Your task to perform on an android device: change the upload size in google photos Image 0: 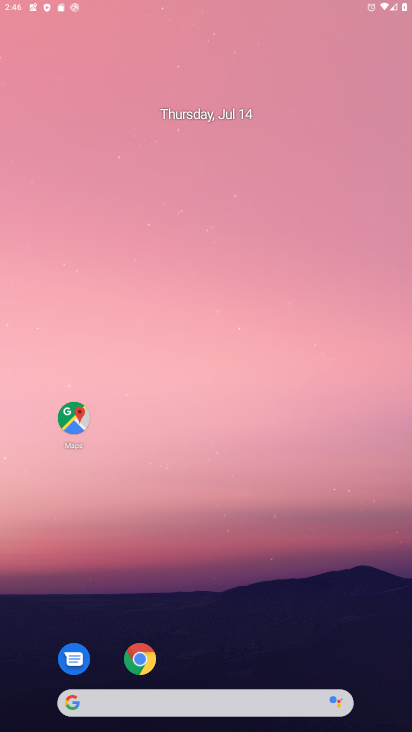
Step 0: click (266, 25)
Your task to perform on an android device: change the upload size in google photos Image 1: 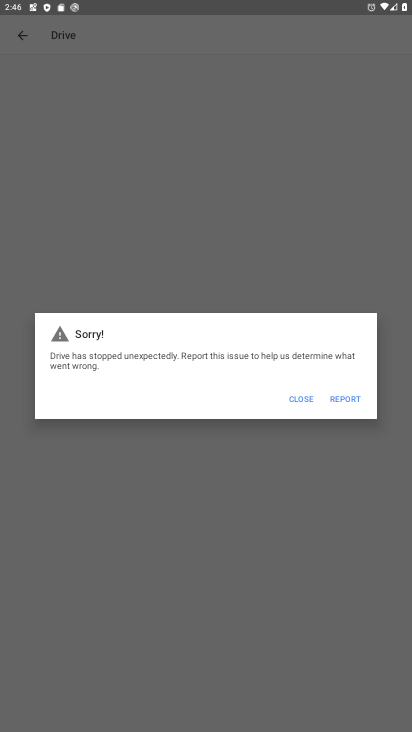
Step 1: press home button
Your task to perform on an android device: change the upload size in google photos Image 2: 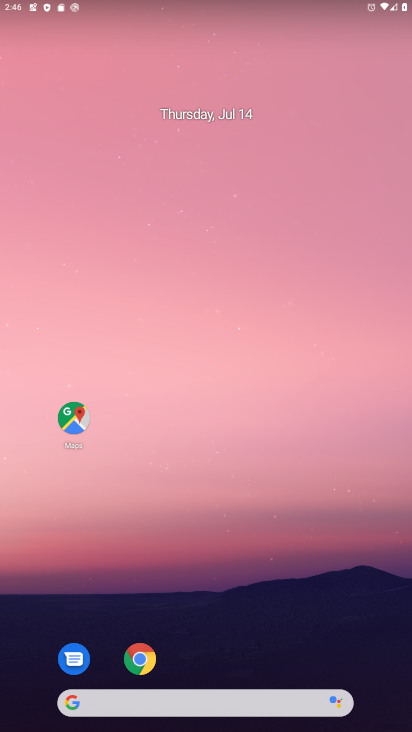
Step 2: drag from (293, 652) to (291, 229)
Your task to perform on an android device: change the upload size in google photos Image 3: 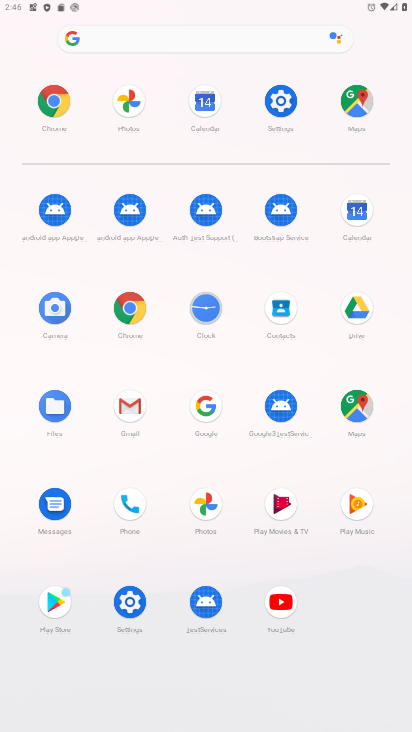
Step 3: click (212, 508)
Your task to perform on an android device: change the upload size in google photos Image 4: 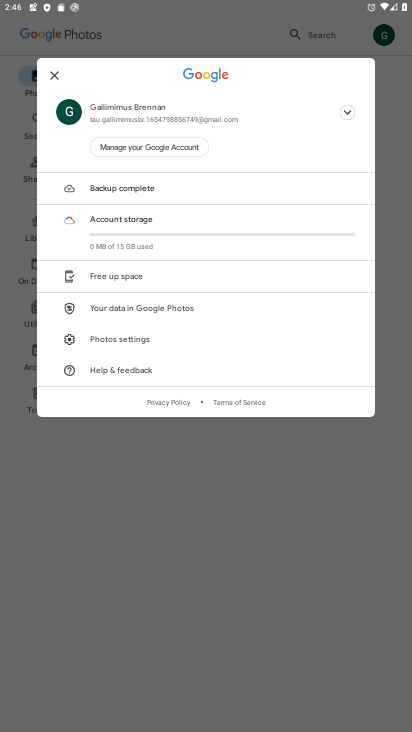
Step 4: click (121, 344)
Your task to perform on an android device: change the upload size in google photos Image 5: 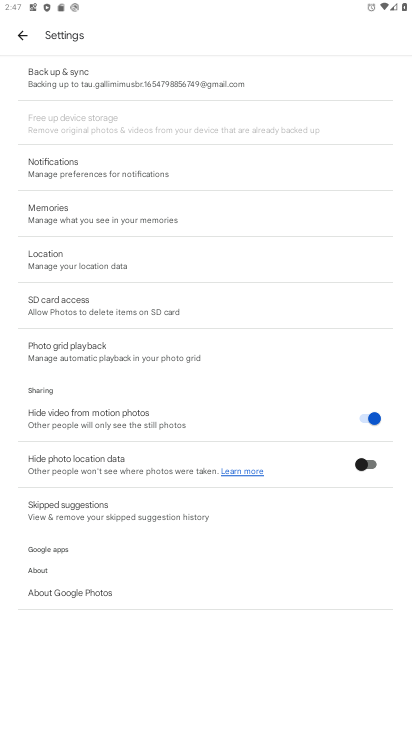
Step 5: click (102, 81)
Your task to perform on an android device: change the upload size in google photos Image 6: 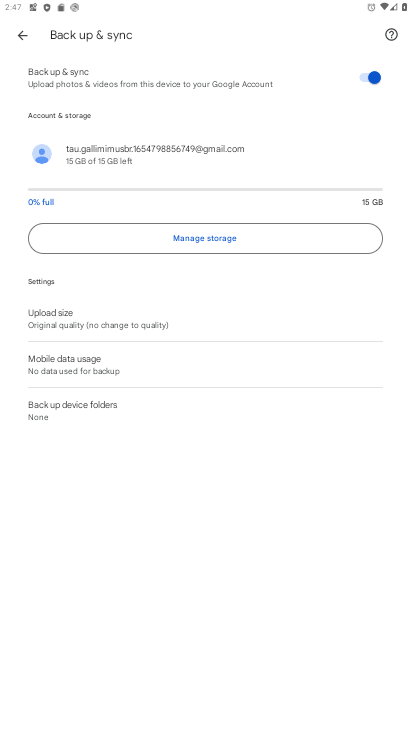
Step 6: click (61, 326)
Your task to perform on an android device: change the upload size in google photos Image 7: 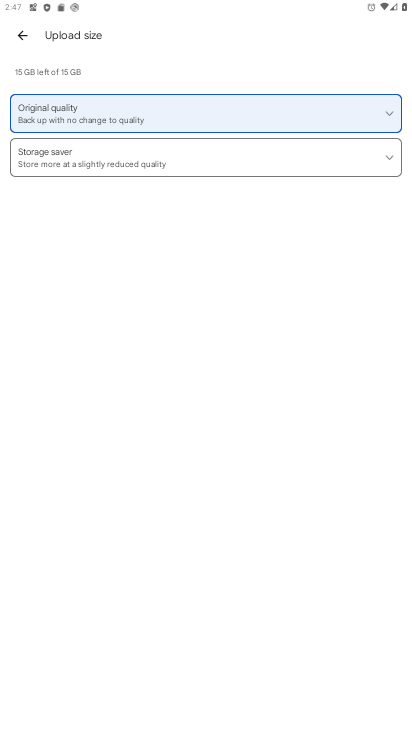
Step 7: click (58, 159)
Your task to perform on an android device: change the upload size in google photos Image 8: 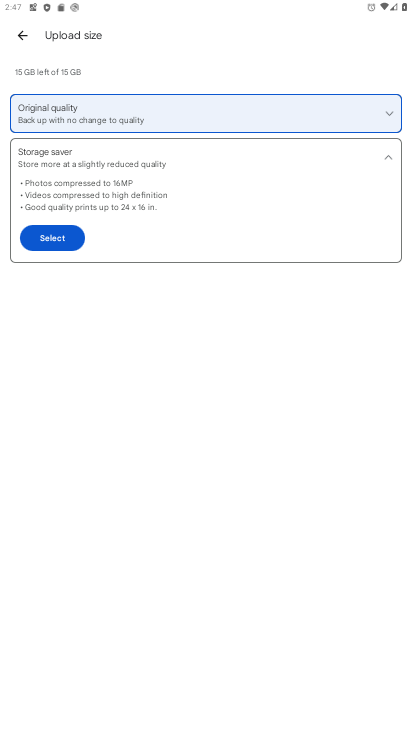
Step 8: click (42, 254)
Your task to perform on an android device: change the upload size in google photos Image 9: 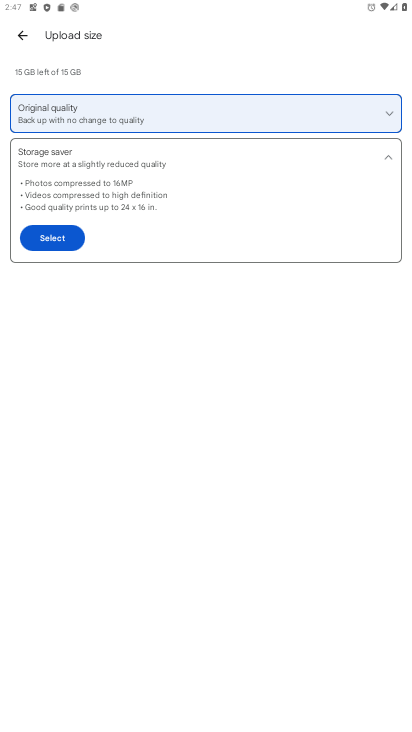
Step 9: click (55, 251)
Your task to perform on an android device: change the upload size in google photos Image 10: 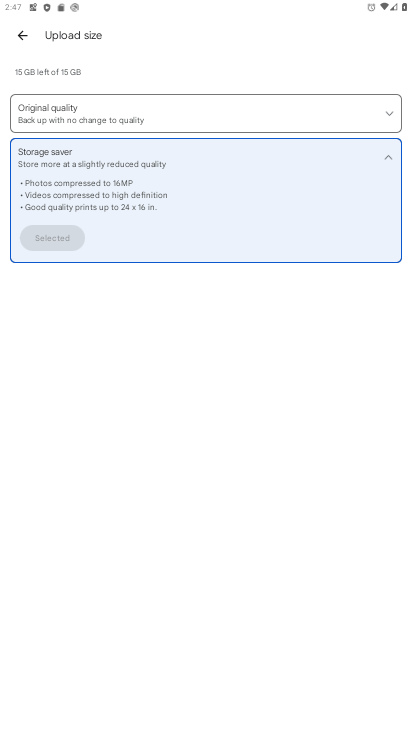
Step 10: task complete